Your task to perform on an android device: show emergency info Image 0: 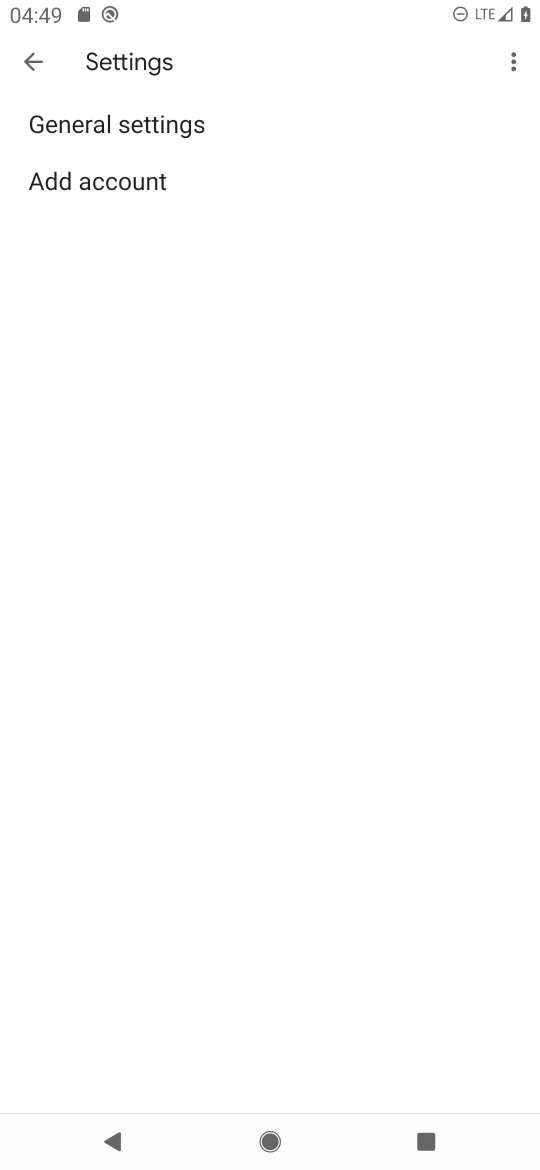
Step 0: press home button
Your task to perform on an android device: show emergency info Image 1: 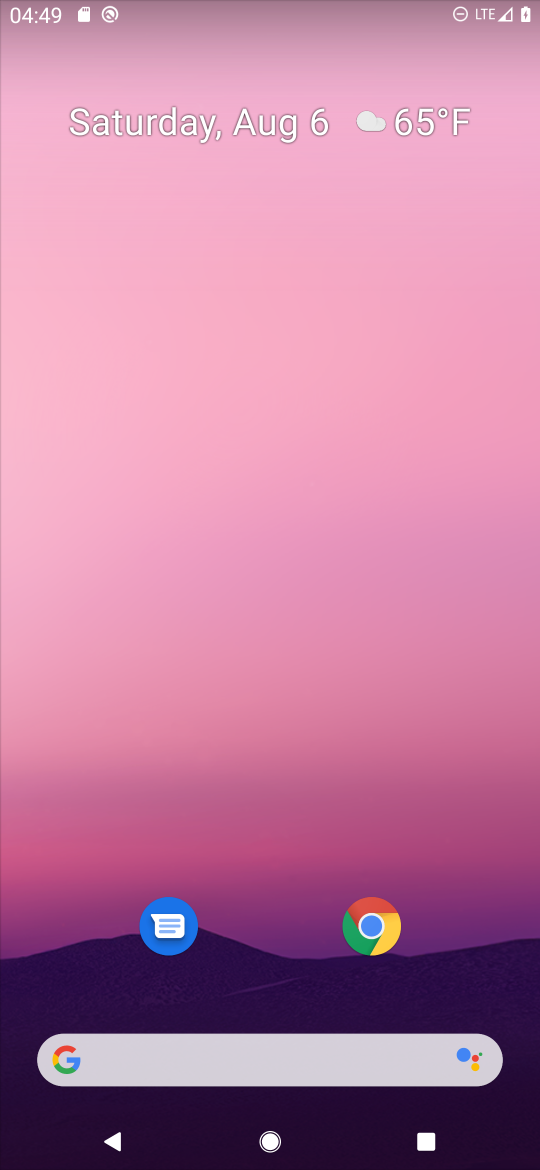
Step 1: drag from (283, 866) to (283, 392)
Your task to perform on an android device: show emergency info Image 2: 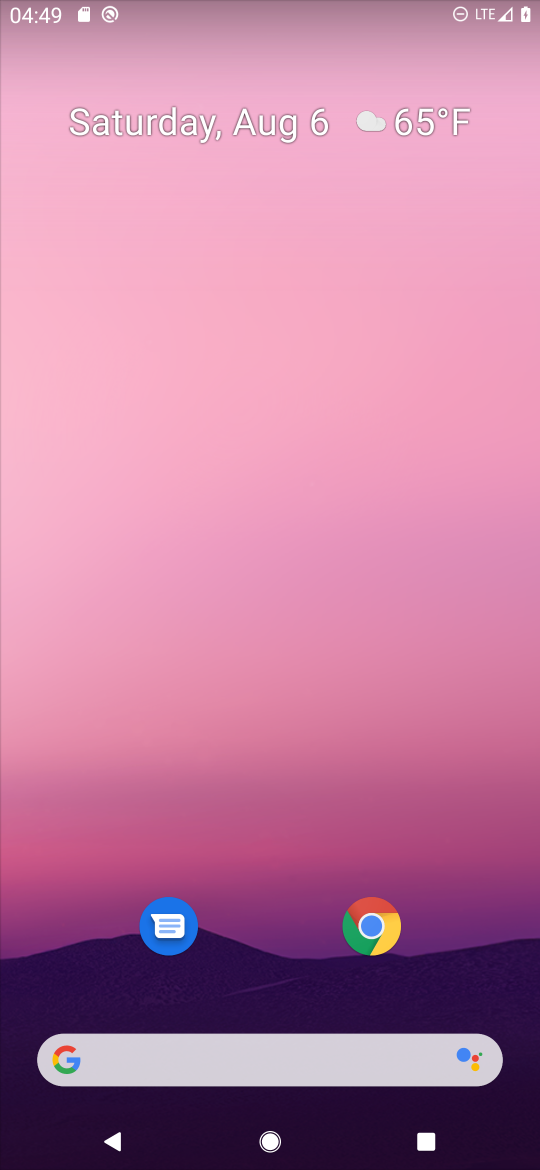
Step 2: drag from (273, 929) to (280, 315)
Your task to perform on an android device: show emergency info Image 3: 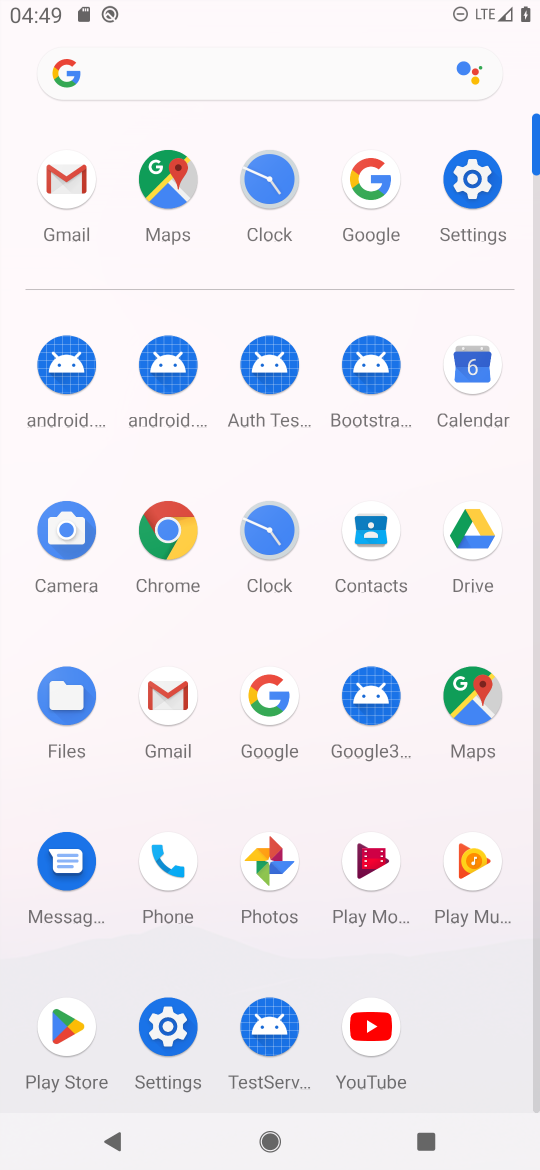
Step 3: click (451, 201)
Your task to perform on an android device: show emergency info Image 4: 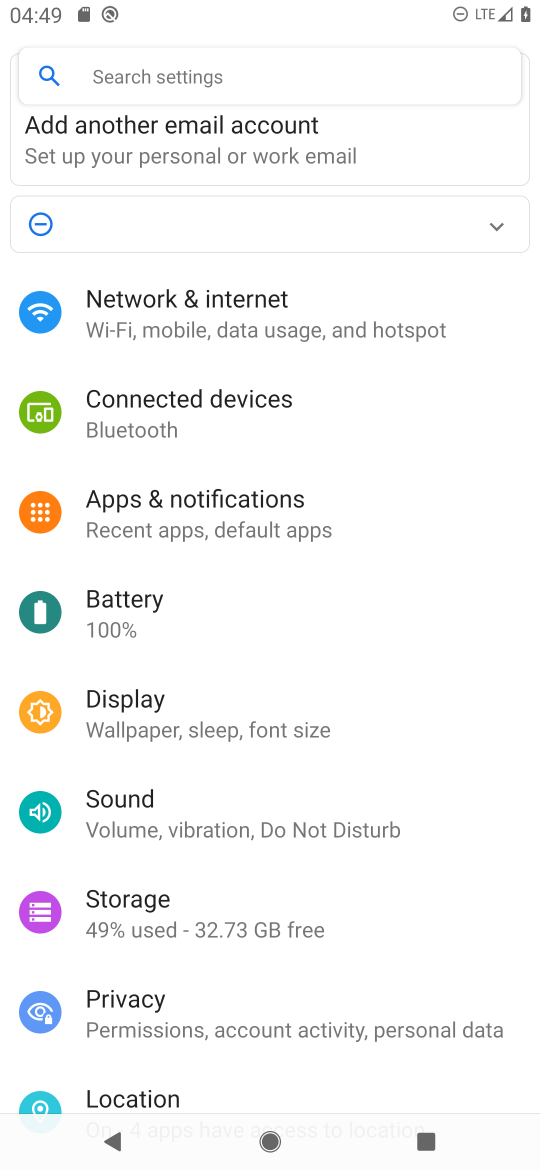
Step 4: drag from (263, 1021) to (304, 401)
Your task to perform on an android device: show emergency info Image 5: 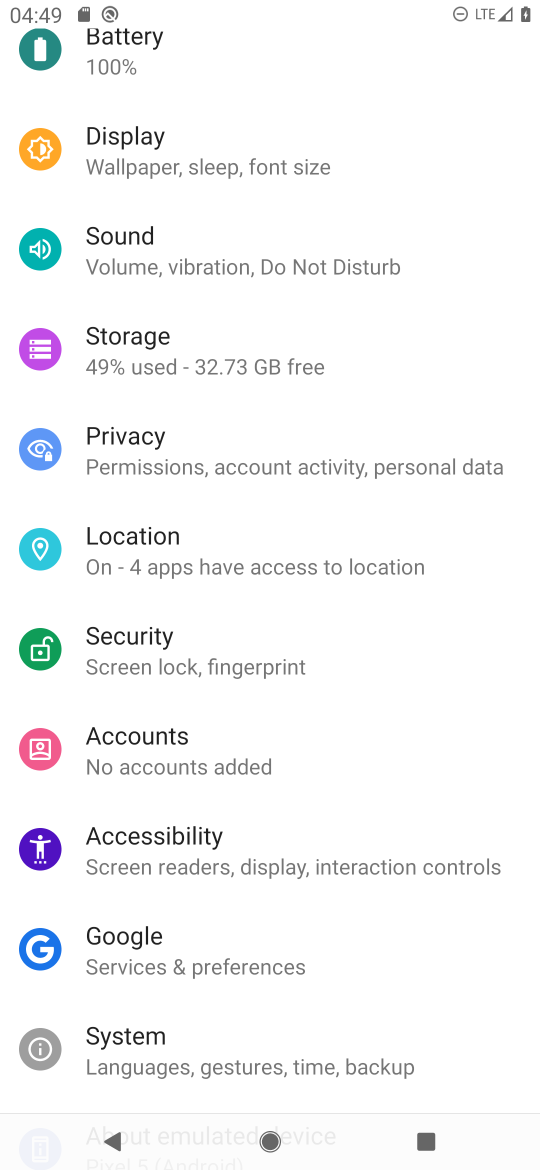
Step 5: drag from (305, 944) to (326, 301)
Your task to perform on an android device: show emergency info Image 6: 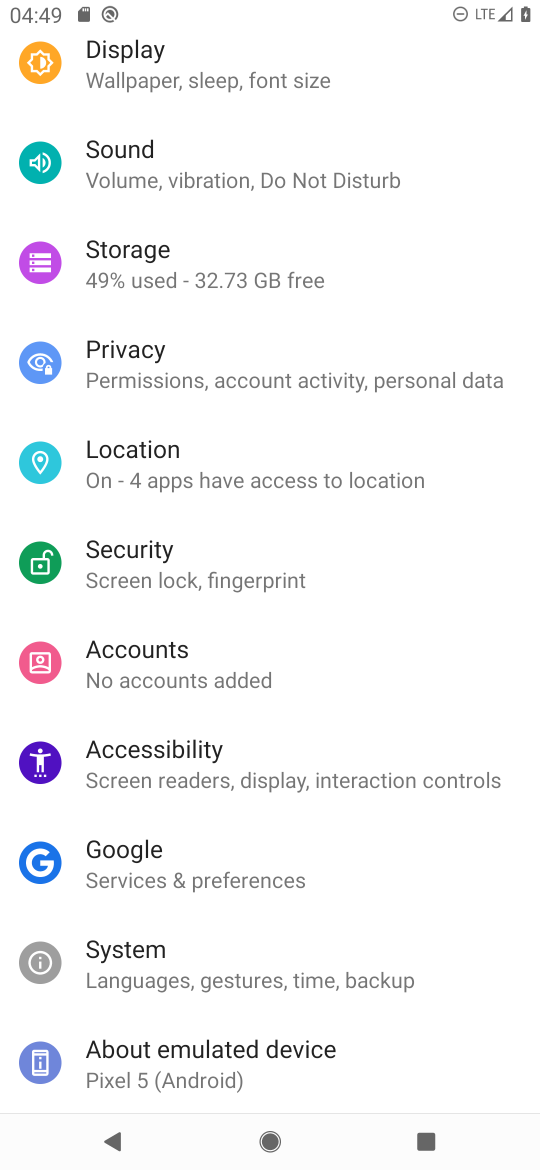
Step 6: click (244, 1036)
Your task to perform on an android device: show emergency info Image 7: 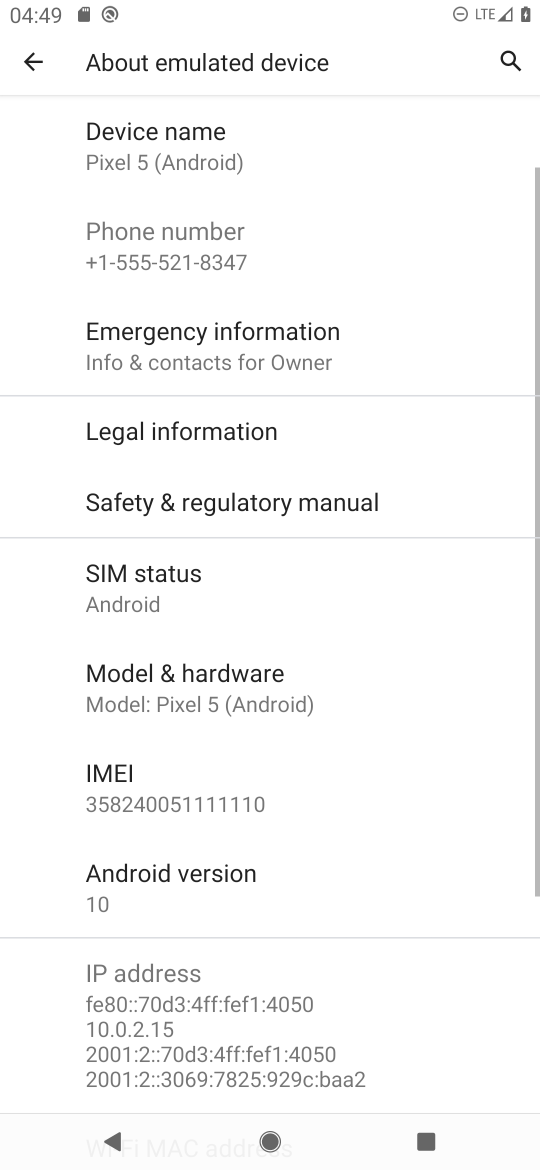
Step 7: click (292, 359)
Your task to perform on an android device: show emergency info Image 8: 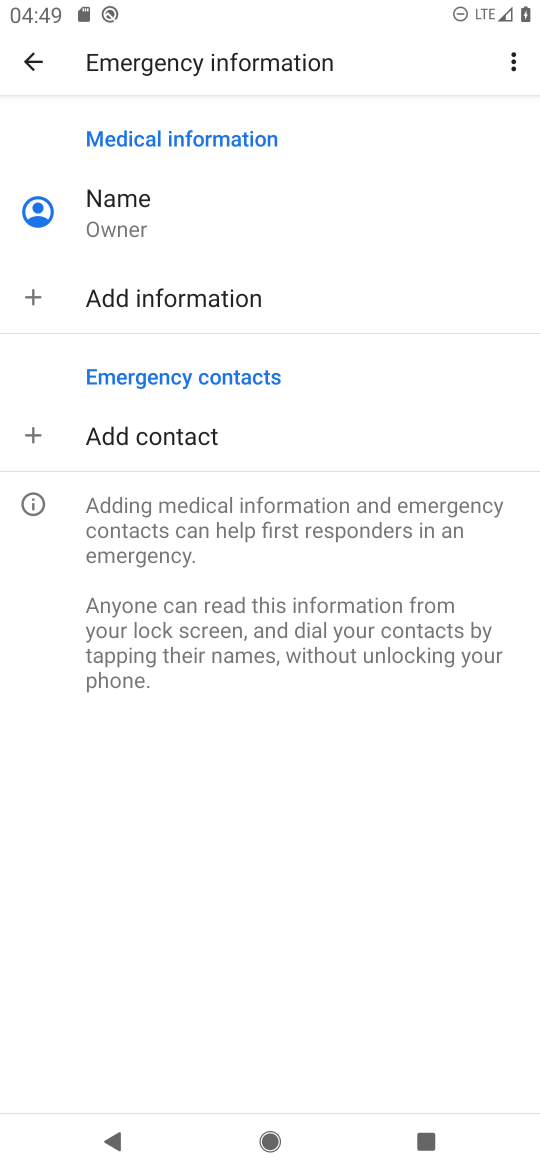
Step 8: task complete